Your task to perform on an android device: turn off improve location accuracy Image 0: 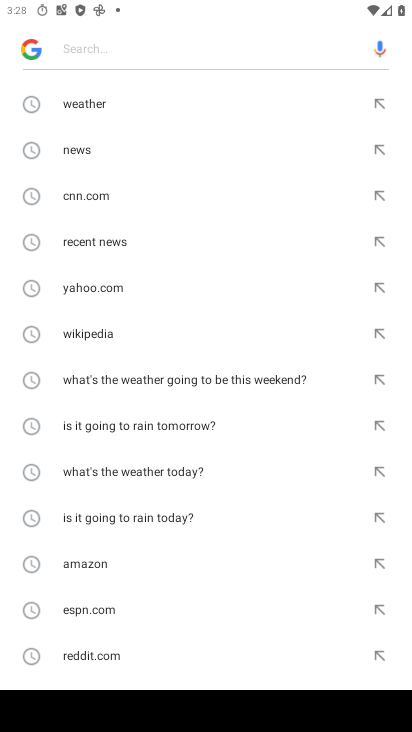
Step 0: press home button
Your task to perform on an android device: turn off improve location accuracy Image 1: 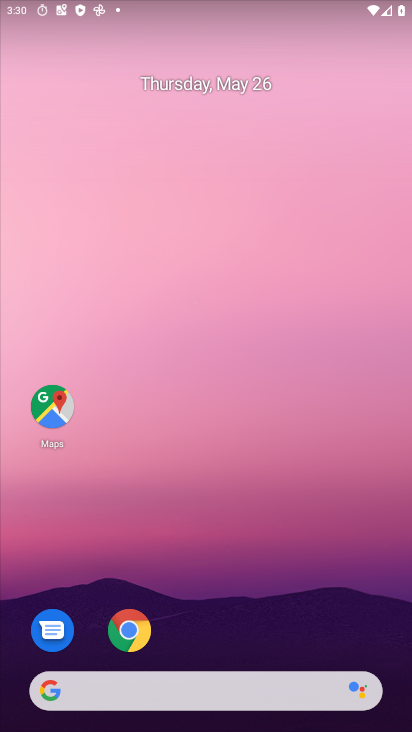
Step 1: drag from (235, 549) to (274, 18)
Your task to perform on an android device: turn off improve location accuracy Image 2: 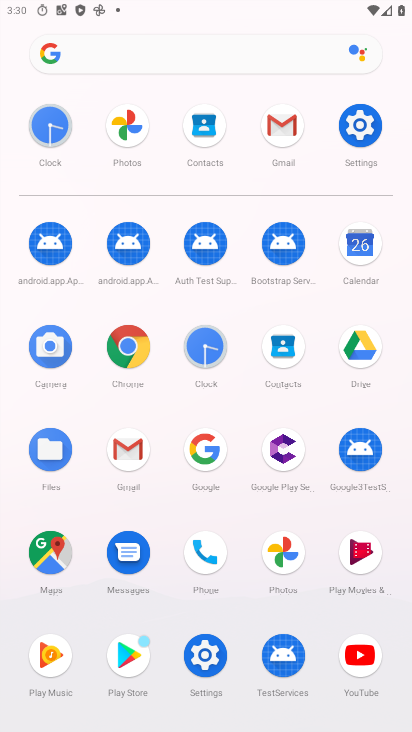
Step 2: click (367, 128)
Your task to perform on an android device: turn off improve location accuracy Image 3: 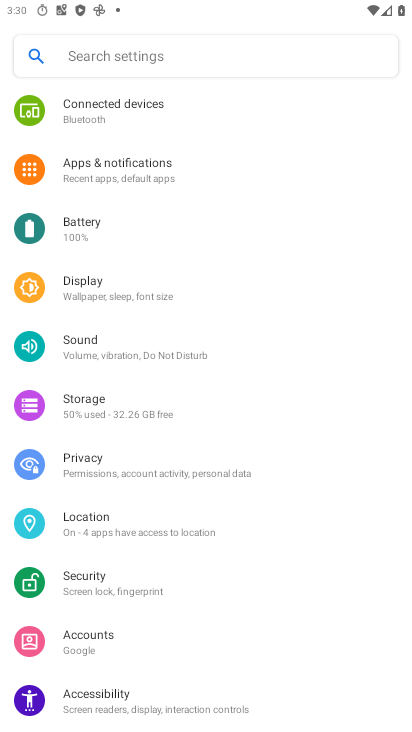
Step 3: click (122, 527)
Your task to perform on an android device: turn off improve location accuracy Image 4: 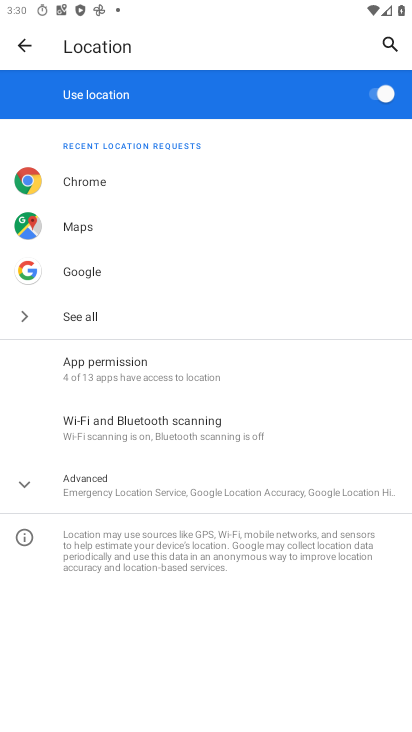
Step 4: click (123, 493)
Your task to perform on an android device: turn off improve location accuracy Image 5: 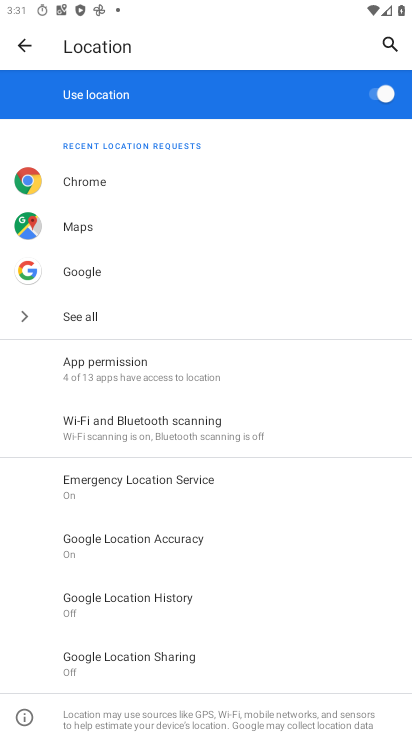
Step 5: click (181, 544)
Your task to perform on an android device: turn off improve location accuracy Image 6: 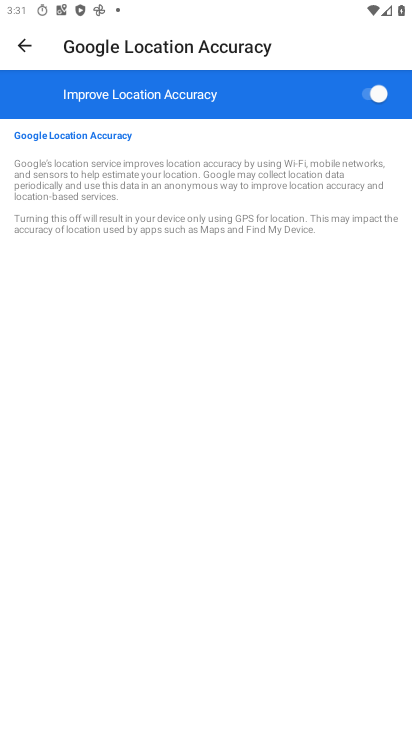
Step 6: click (369, 94)
Your task to perform on an android device: turn off improve location accuracy Image 7: 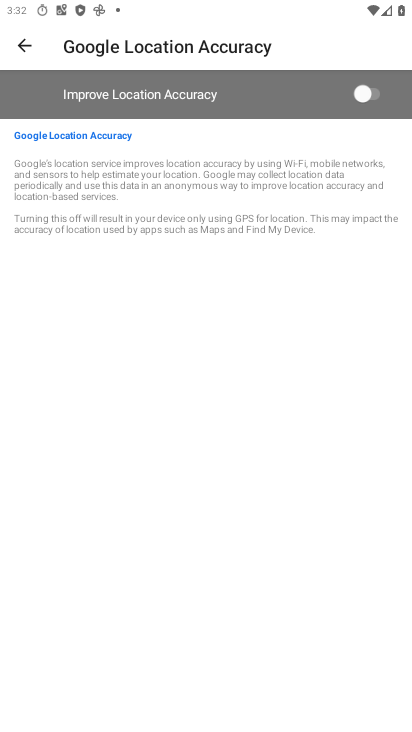
Step 7: task complete